Your task to perform on an android device: Open calendar and show me the fourth week of next month Image 0: 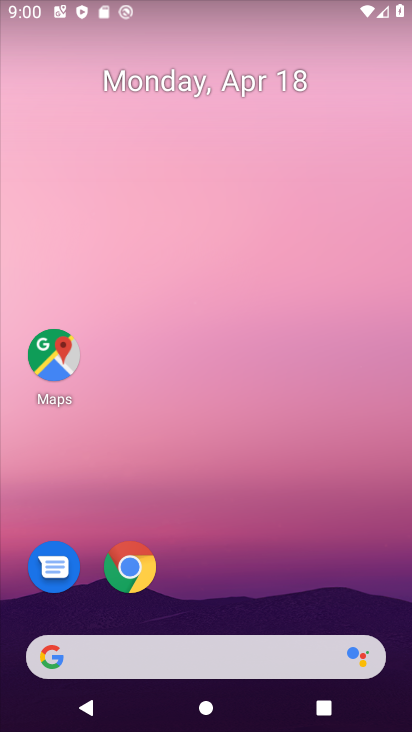
Step 0: drag from (205, 590) to (215, 88)
Your task to perform on an android device: Open calendar and show me the fourth week of next month Image 1: 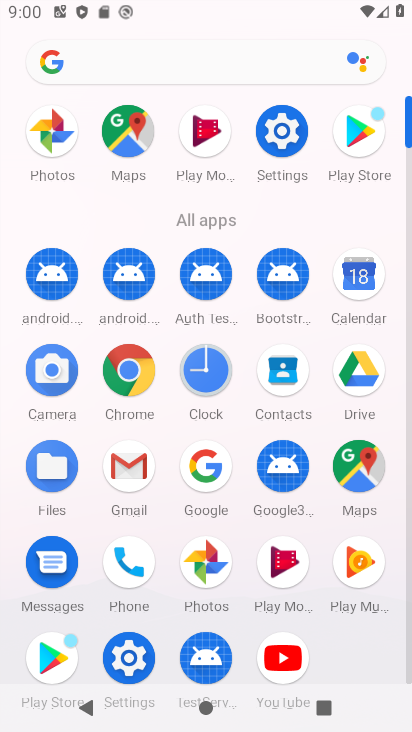
Step 1: click (343, 269)
Your task to perform on an android device: Open calendar and show me the fourth week of next month Image 2: 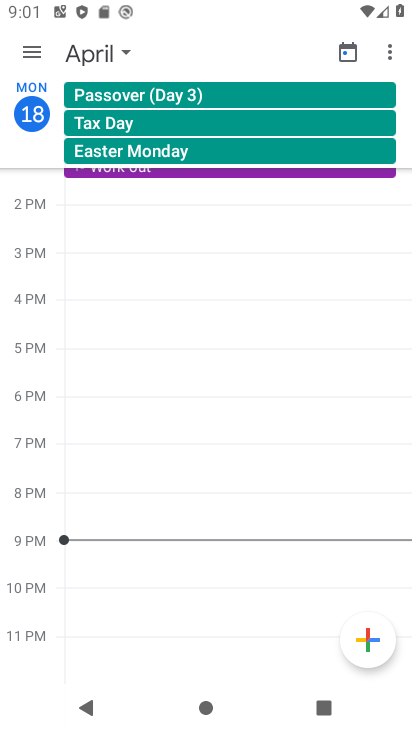
Step 2: click (119, 54)
Your task to perform on an android device: Open calendar and show me the fourth week of next month Image 3: 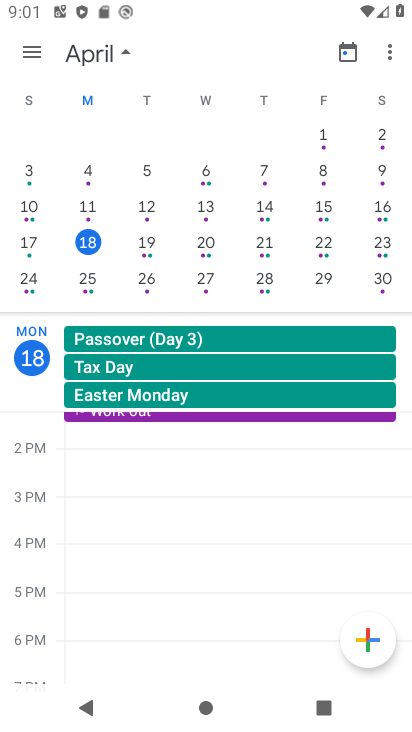
Step 3: task complete